Your task to perform on an android device: set default search engine in the chrome app Image 0: 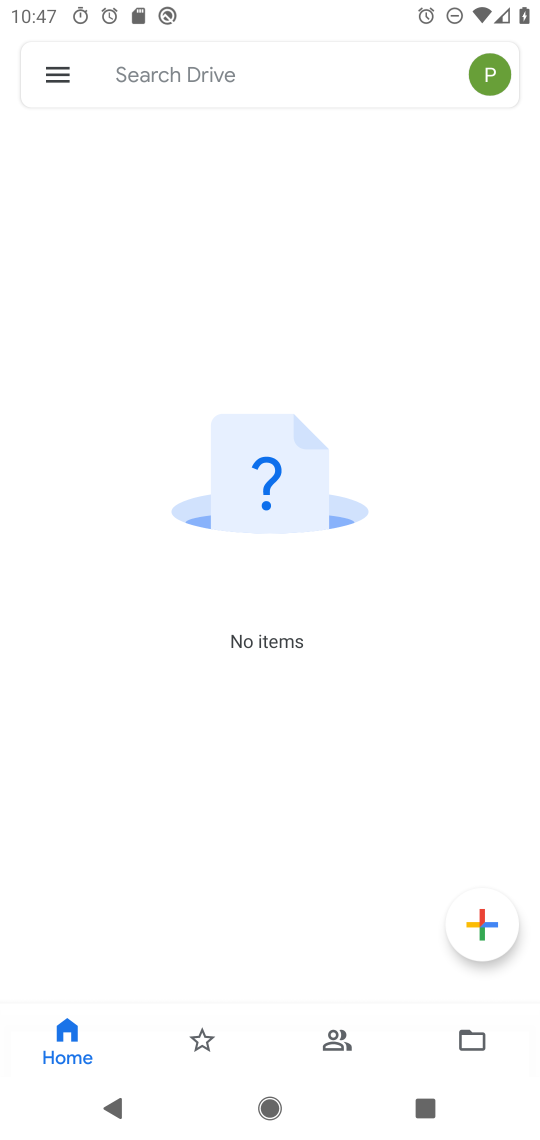
Step 0: press home button
Your task to perform on an android device: set default search engine in the chrome app Image 1: 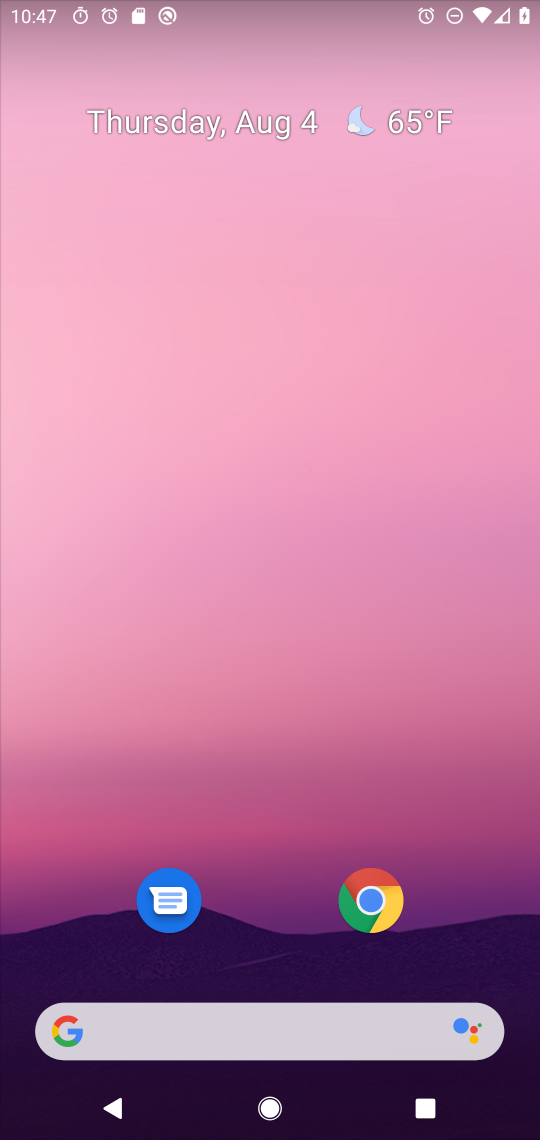
Step 1: click (371, 901)
Your task to perform on an android device: set default search engine in the chrome app Image 2: 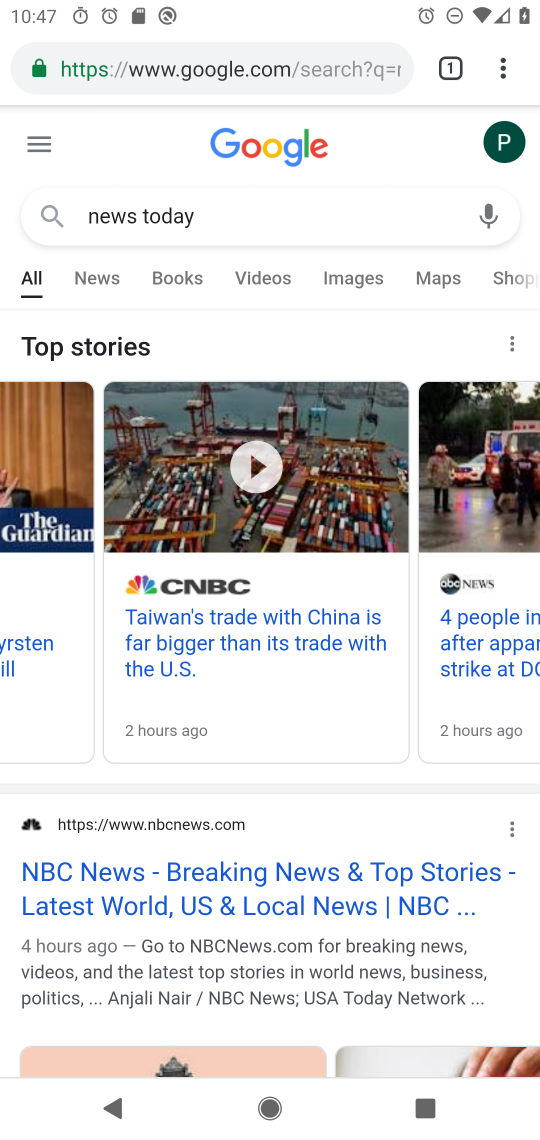
Step 2: drag from (501, 72) to (250, 834)
Your task to perform on an android device: set default search engine in the chrome app Image 3: 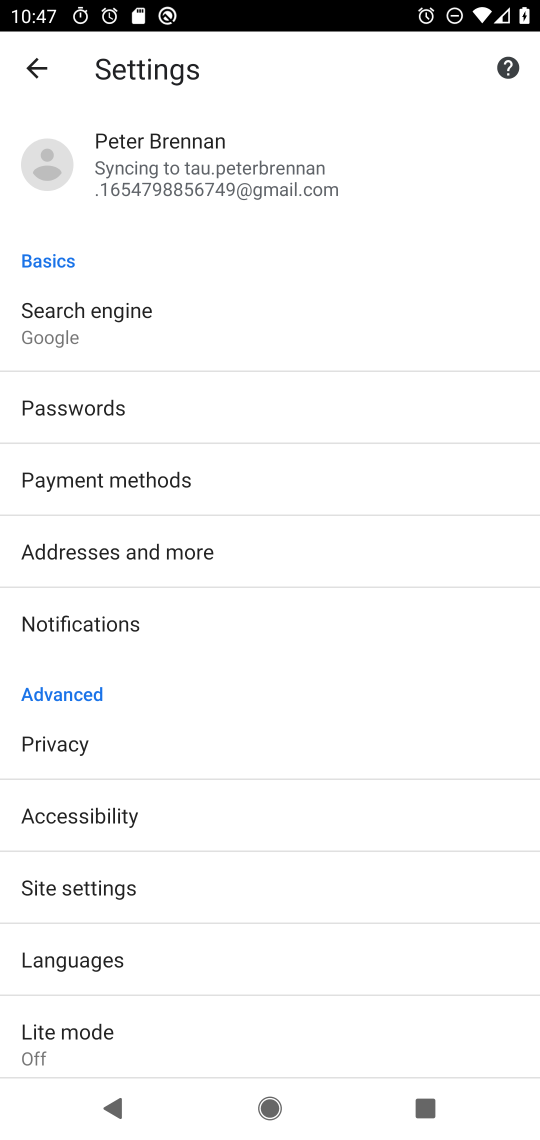
Step 3: click (110, 302)
Your task to perform on an android device: set default search engine in the chrome app Image 4: 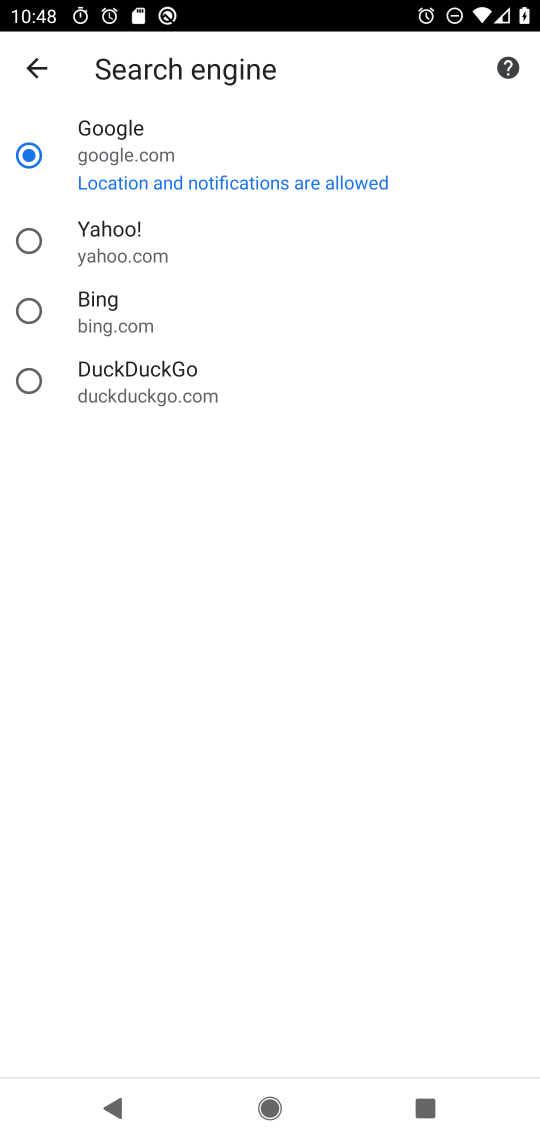
Step 4: click (41, 147)
Your task to perform on an android device: set default search engine in the chrome app Image 5: 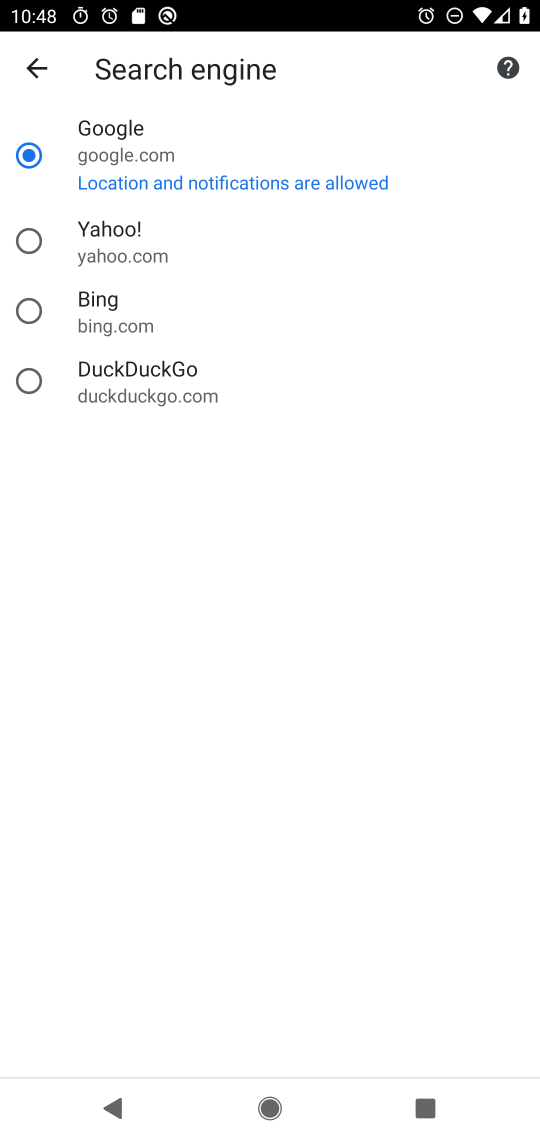
Step 5: task complete